Your task to perform on an android device: turn on notifications settings in the gmail app Image 0: 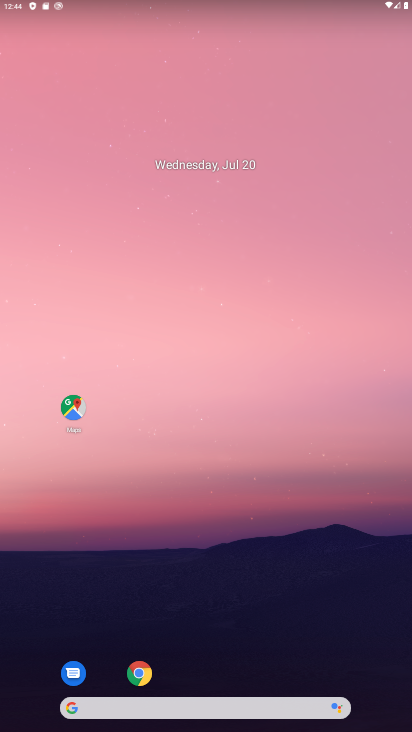
Step 0: drag from (215, 536) to (173, 145)
Your task to perform on an android device: turn on notifications settings in the gmail app Image 1: 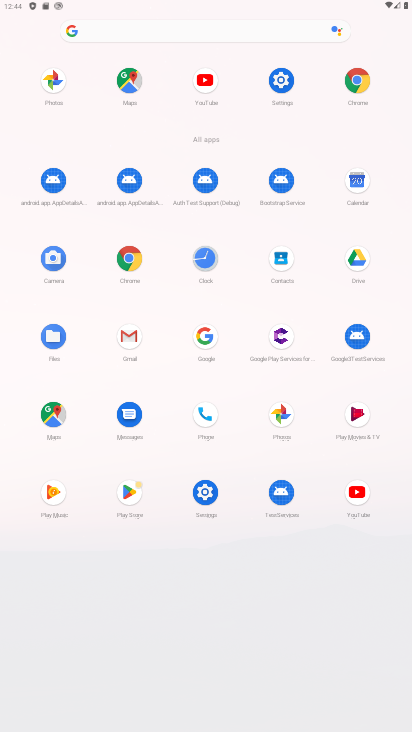
Step 1: click (134, 335)
Your task to perform on an android device: turn on notifications settings in the gmail app Image 2: 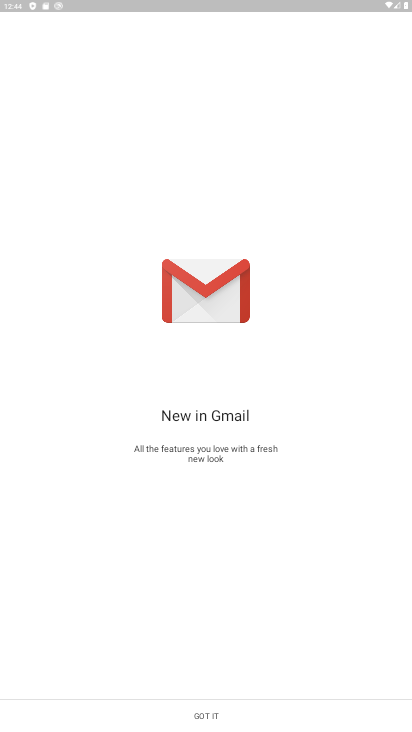
Step 2: click (204, 720)
Your task to perform on an android device: turn on notifications settings in the gmail app Image 3: 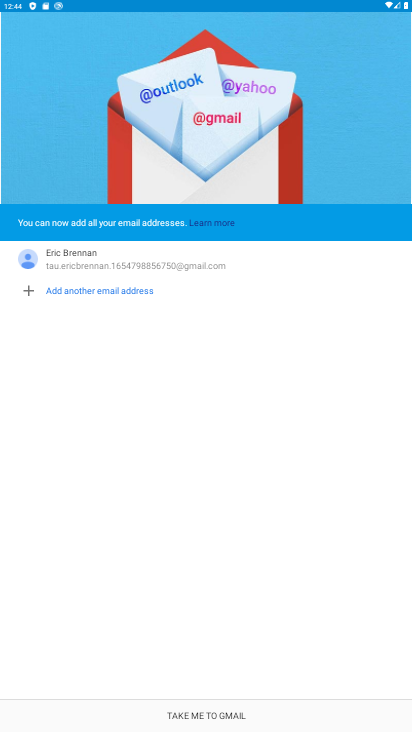
Step 3: click (204, 720)
Your task to perform on an android device: turn on notifications settings in the gmail app Image 4: 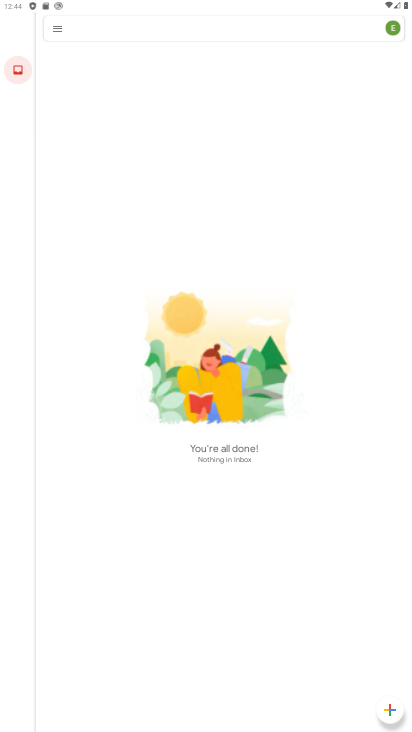
Step 4: click (52, 32)
Your task to perform on an android device: turn on notifications settings in the gmail app Image 5: 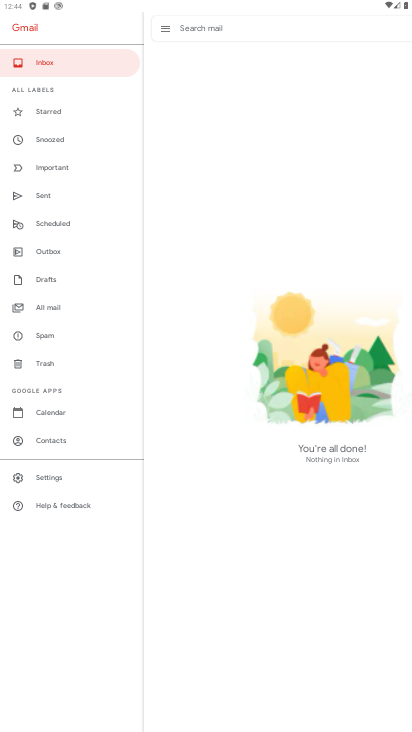
Step 5: click (39, 478)
Your task to perform on an android device: turn on notifications settings in the gmail app Image 6: 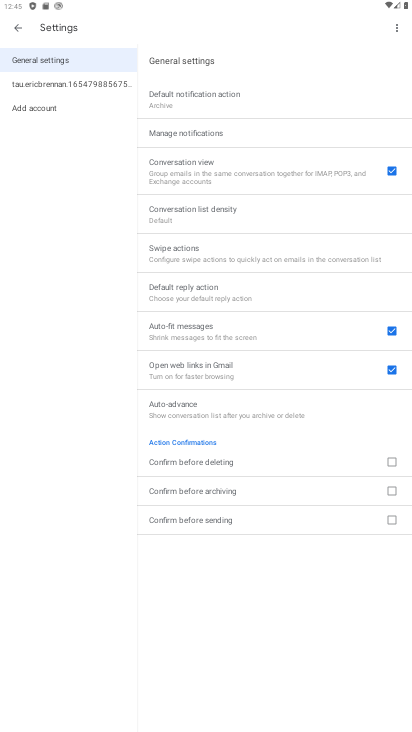
Step 6: click (187, 139)
Your task to perform on an android device: turn on notifications settings in the gmail app Image 7: 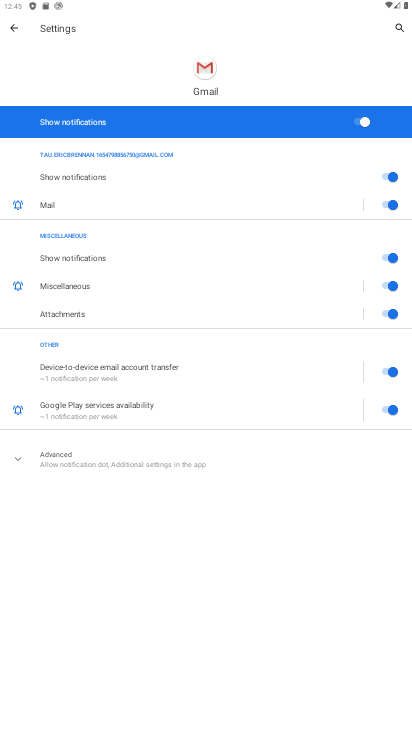
Step 7: task complete